Your task to perform on an android device: turn on showing notifications on the lock screen Image 0: 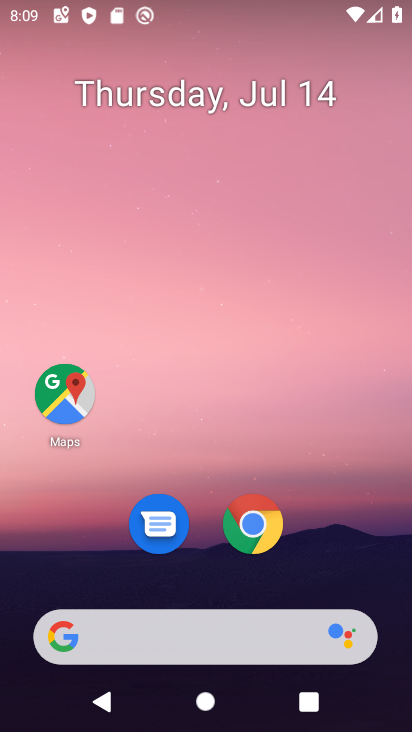
Step 0: drag from (321, 540) to (341, 0)
Your task to perform on an android device: turn on showing notifications on the lock screen Image 1: 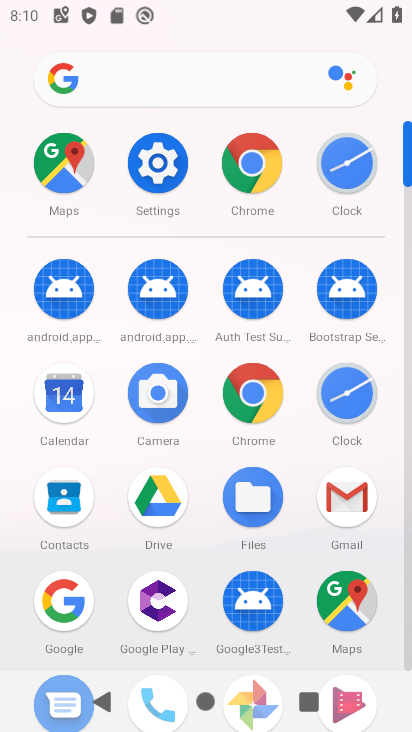
Step 1: click (166, 174)
Your task to perform on an android device: turn on showing notifications on the lock screen Image 2: 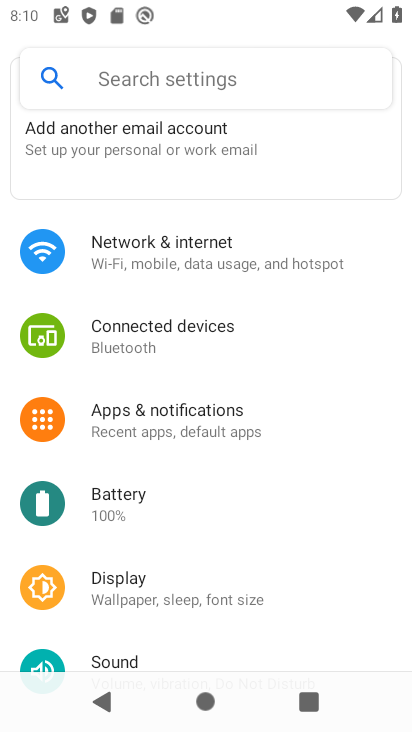
Step 2: click (238, 416)
Your task to perform on an android device: turn on showing notifications on the lock screen Image 3: 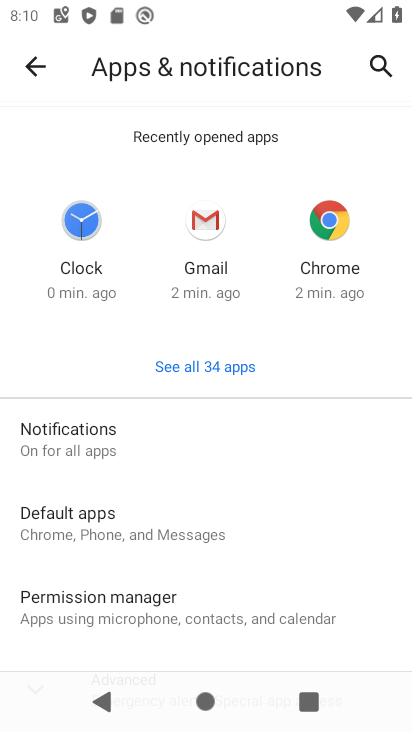
Step 3: click (96, 445)
Your task to perform on an android device: turn on showing notifications on the lock screen Image 4: 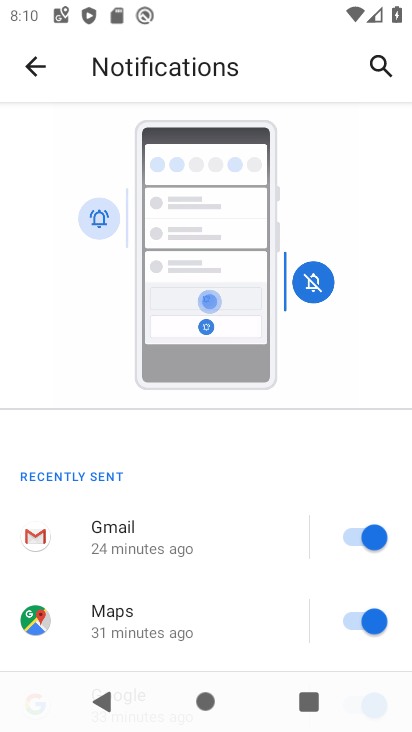
Step 4: drag from (228, 578) to (263, 195)
Your task to perform on an android device: turn on showing notifications on the lock screen Image 5: 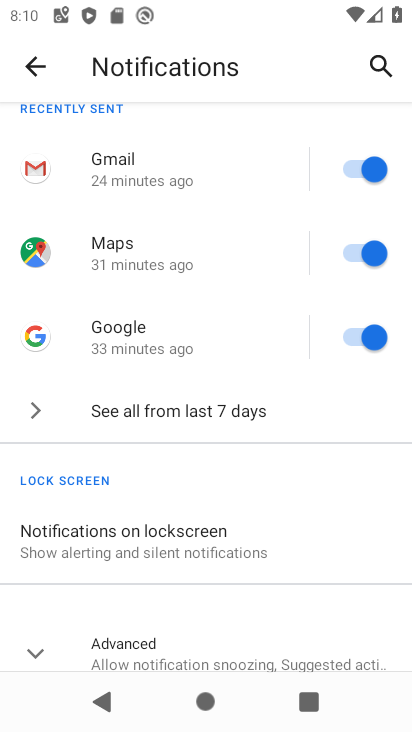
Step 5: click (195, 531)
Your task to perform on an android device: turn on showing notifications on the lock screen Image 6: 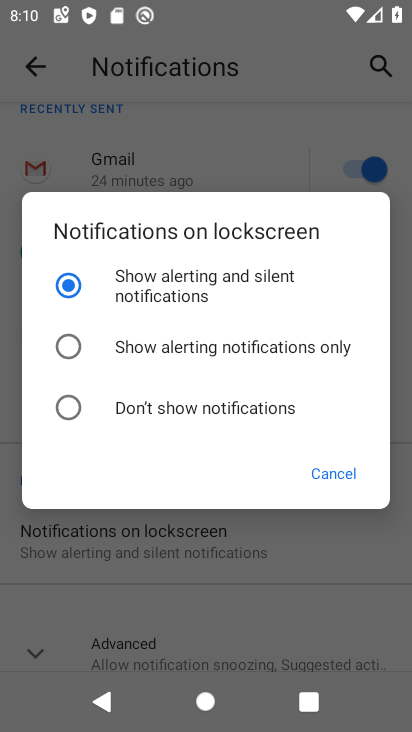
Step 6: click (317, 471)
Your task to perform on an android device: turn on showing notifications on the lock screen Image 7: 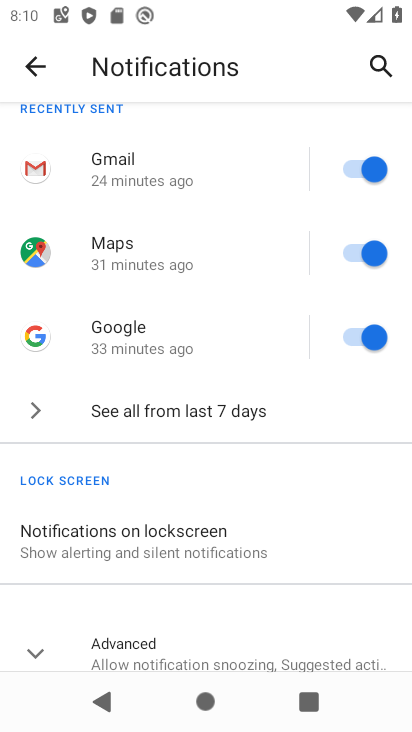
Step 7: task complete